Your task to perform on an android device: Go to Wikipedia Image 0: 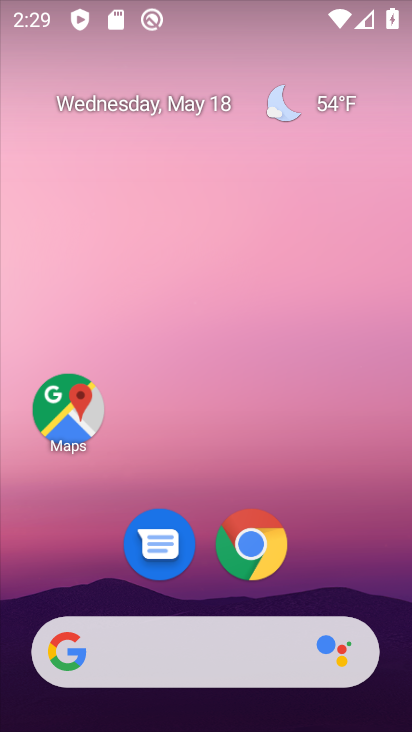
Step 0: click (259, 553)
Your task to perform on an android device: Go to Wikipedia Image 1: 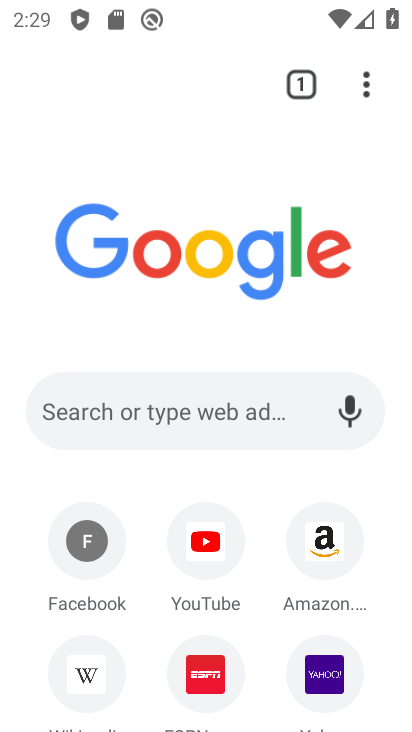
Step 1: click (110, 671)
Your task to perform on an android device: Go to Wikipedia Image 2: 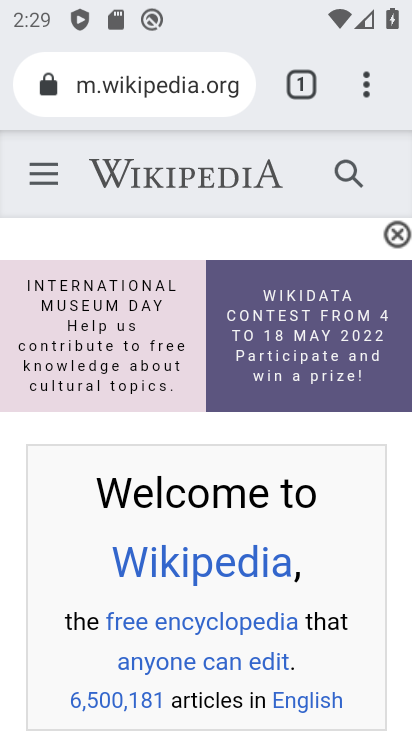
Step 2: task complete